Your task to perform on an android device: Go to battery settings Image 0: 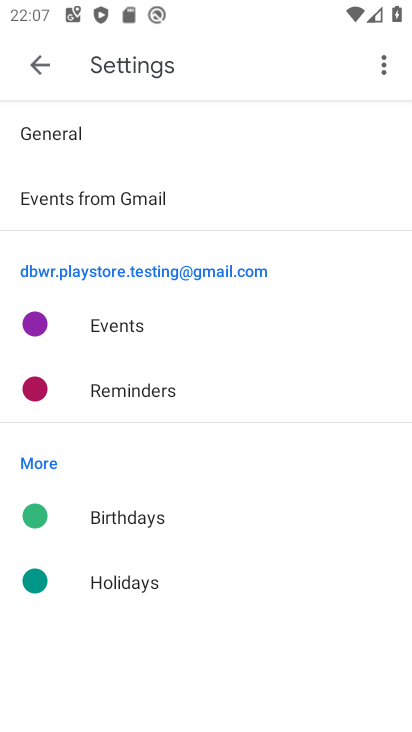
Step 0: press home button
Your task to perform on an android device: Go to battery settings Image 1: 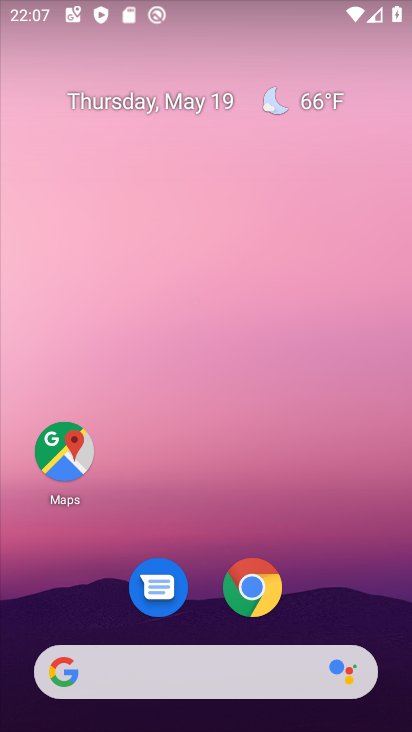
Step 1: drag from (258, 661) to (313, 149)
Your task to perform on an android device: Go to battery settings Image 2: 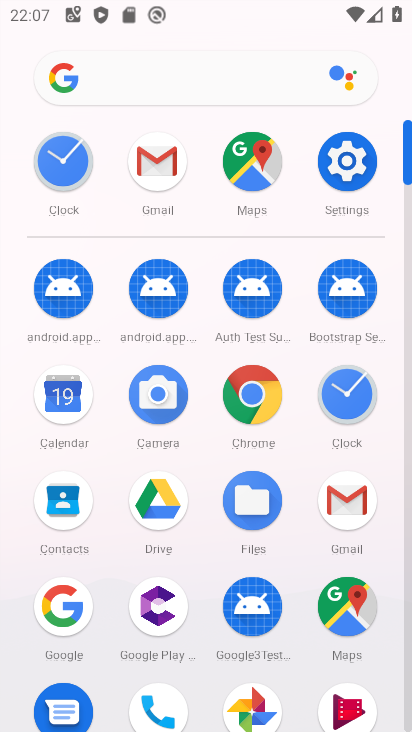
Step 2: click (341, 166)
Your task to perform on an android device: Go to battery settings Image 3: 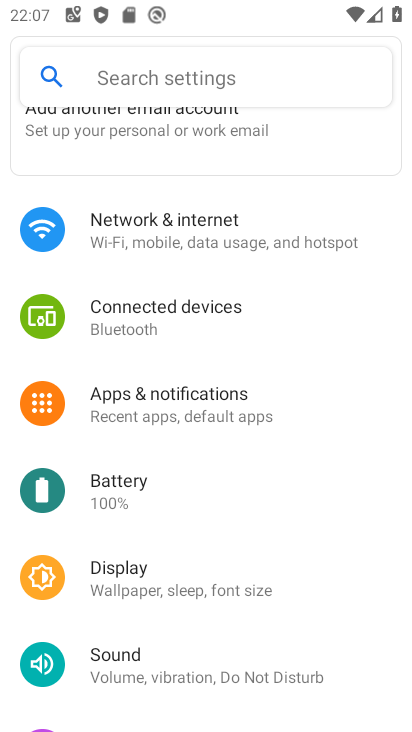
Step 3: click (108, 500)
Your task to perform on an android device: Go to battery settings Image 4: 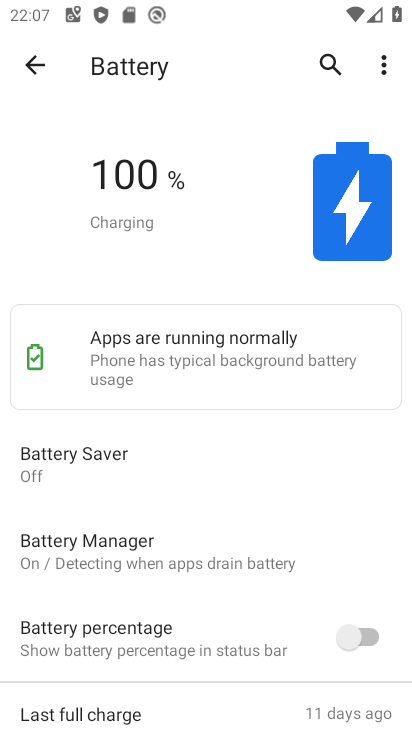
Step 4: task complete